Your task to perform on an android device: Check the news Image 0: 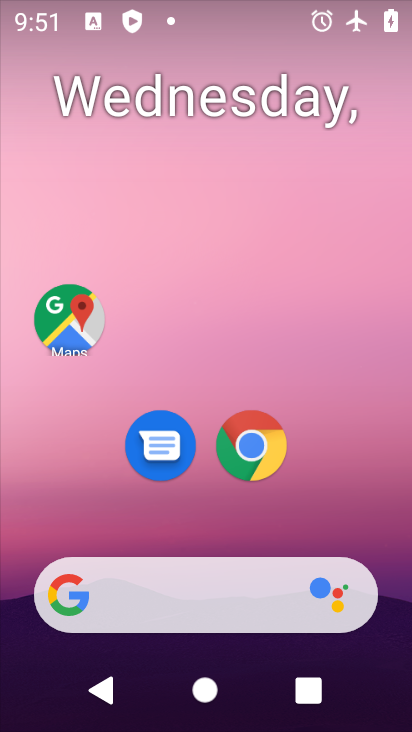
Step 0: drag from (331, 437) to (285, 127)
Your task to perform on an android device: Check the news Image 1: 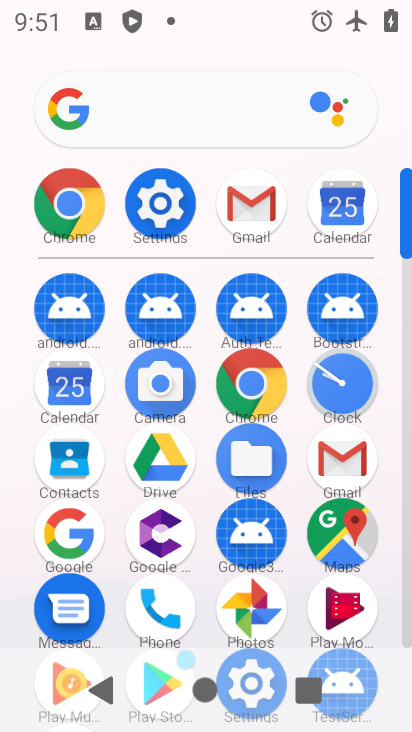
Step 1: click (70, 192)
Your task to perform on an android device: Check the news Image 2: 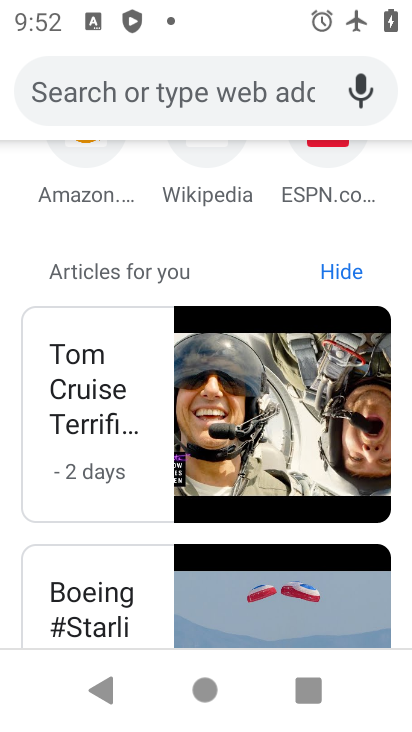
Step 2: task complete